Your task to perform on an android device: Go to Reddit.com Image 0: 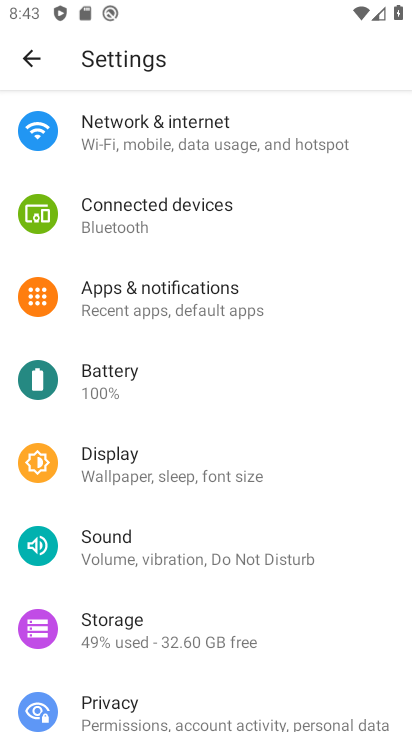
Step 0: press home button
Your task to perform on an android device: Go to Reddit.com Image 1: 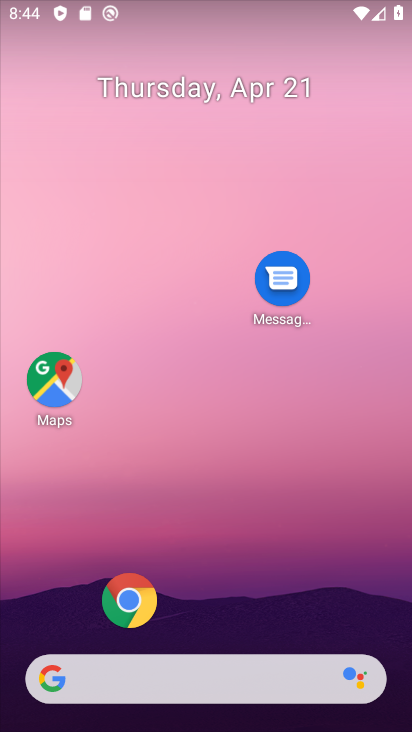
Step 1: click (117, 593)
Your task to perform on an android device: Go to Reddit.com Image 2: 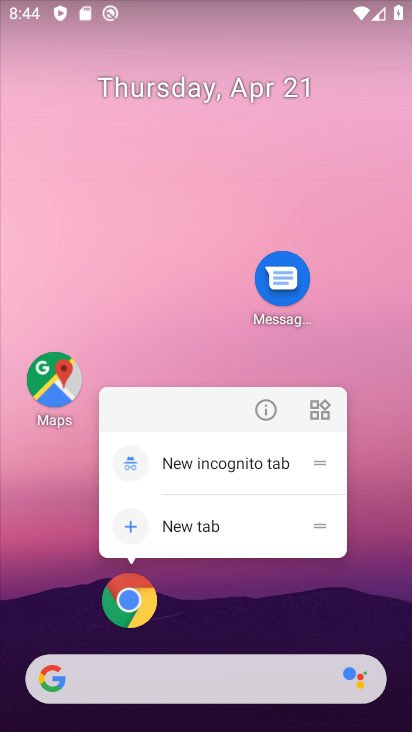
Step 2: click (267, 415)
Your task to perform on an android device: Go to Reddit.com Image 3: 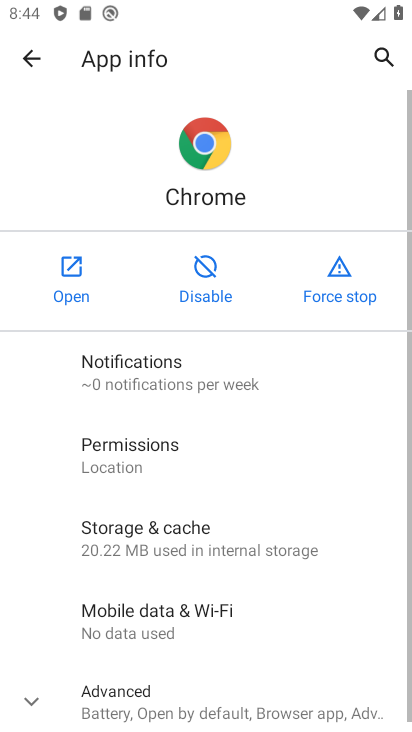
Step 3: click (68, 270)
Your task to perform on an android device: Go to Reddit.com Image 4: 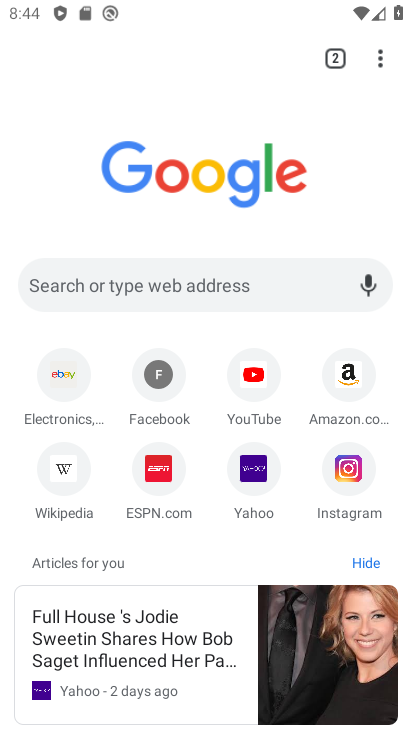
Step 4: click (241, 268)
Your task to perform on an android device: Go to Reddit.com Image 5: 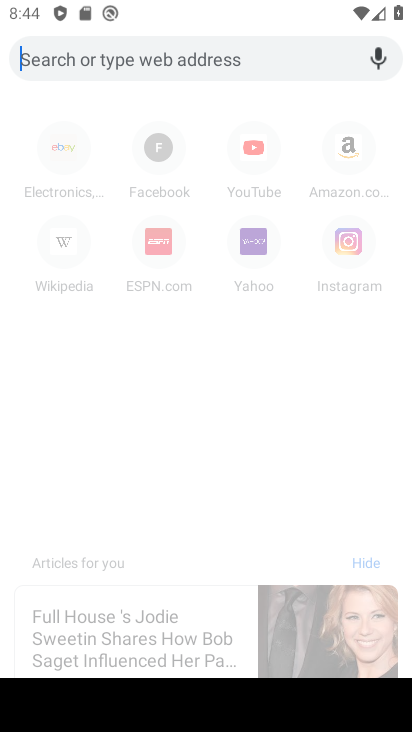
Step 5: type "Reddit.com"
Your task to perform on an android device: Go to Reddit.com Image 6: 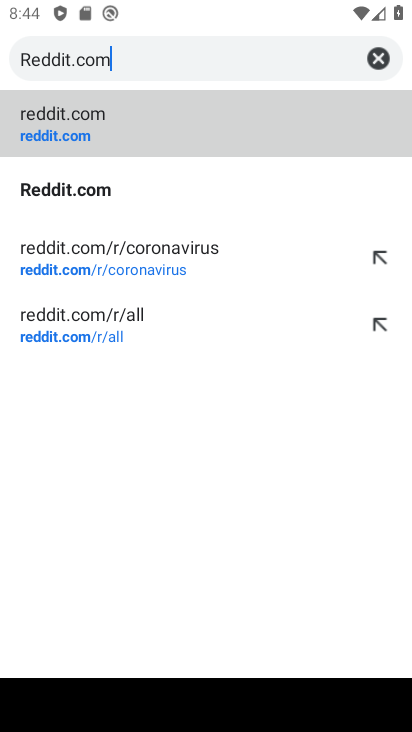
Step 6: type ""
Your task to perform on an android device: Go to Reddit.com Image 7: 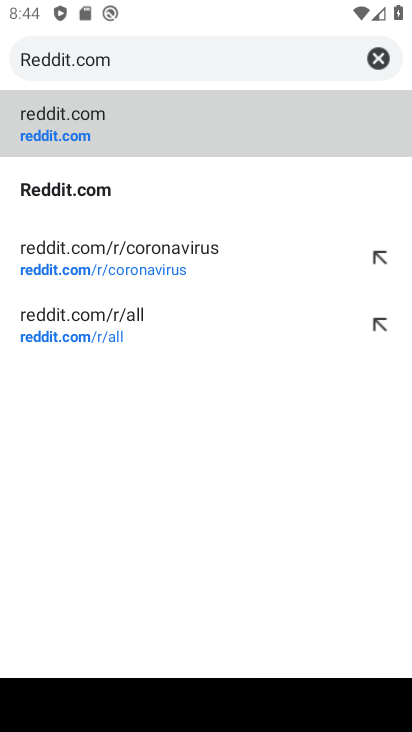
Step 7: click (91, 172)
Your task to perform on an android device: Go to Reddit.com Image 8: 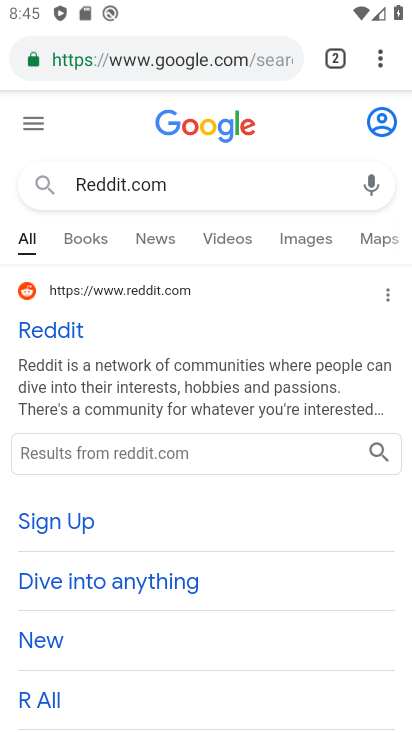
Step 8: task complete